Your task to perform on an android device: Search for Mexican restaurants on Maps Image 0: 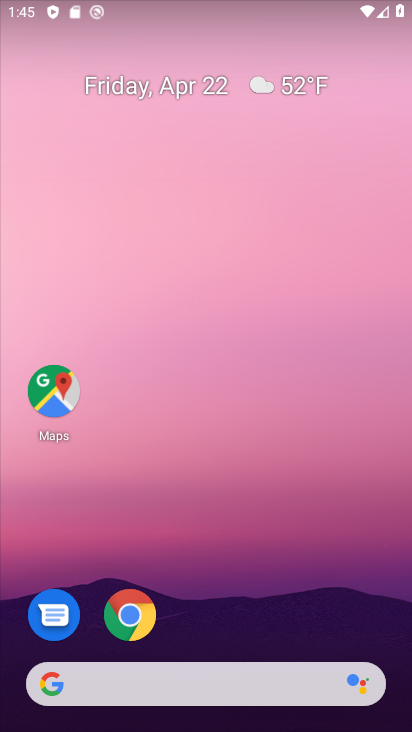
Step 0: drag from (200, 660) to (317, 81)
Your task to perform on an android device: Search for Mexican restaurants on Maps Image 1: 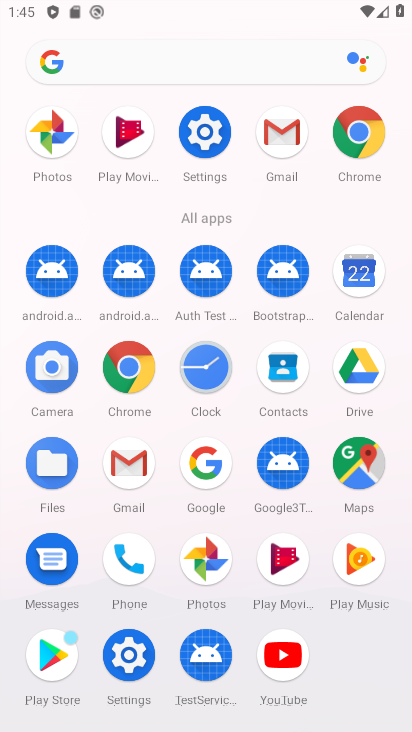
Step 1: click (367, 459)
Your task to perform on an android device: Search for Mexican restaurants on Maps Image 2: 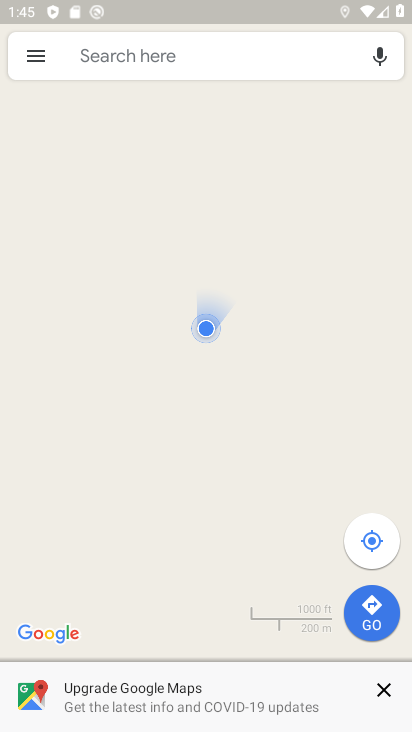
Step 2: click (211, 60)
Your task to perform on an android device: Search for Mexican restaurants on Maps Image 3: 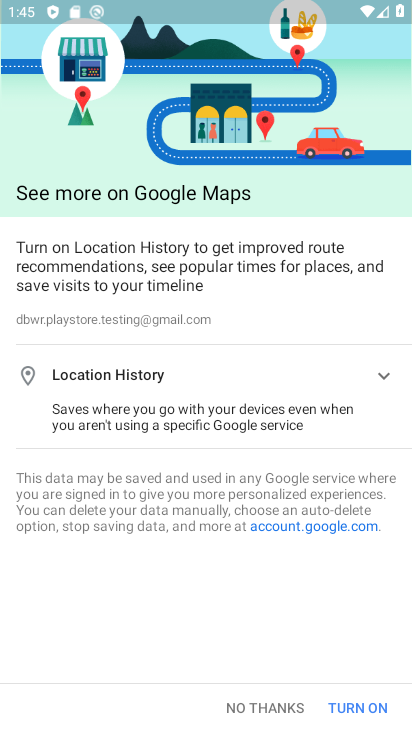
Step 3: click (281, 703)
Your task to perform on an android device: Search for Mexican restaurants on Maps Image 4: 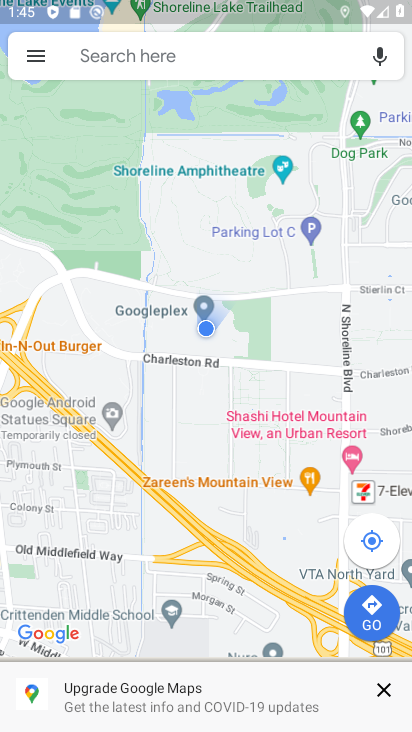
Step 4: click (193, 78)
Your task to perform on an android device: Search for Mexican restaurants on Maps Image 5: 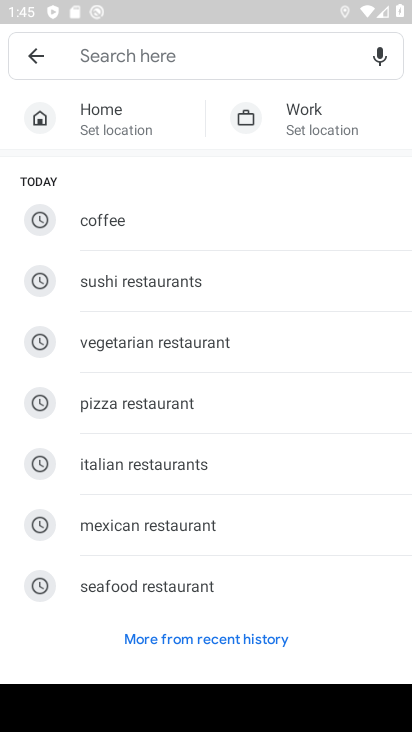
Step 5: type "Mexican restaurants "
Your task to perform on an android device: Search for Mexican restaurants on Maps Image 6: 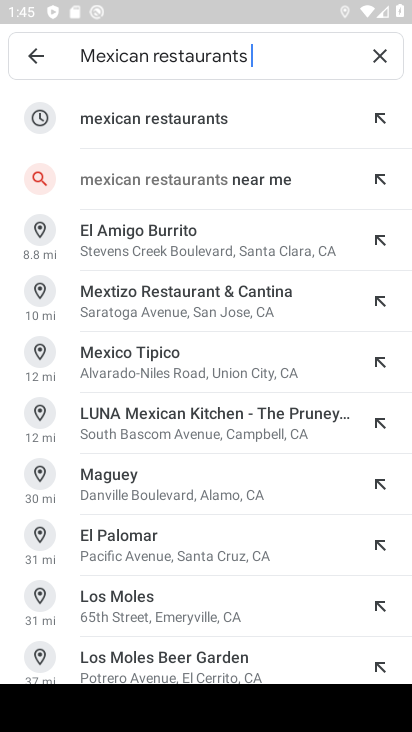
Step 6: click (207, 132)
Your task to perform on an android device: Search for Mexican restaurants on Maps Image 7: 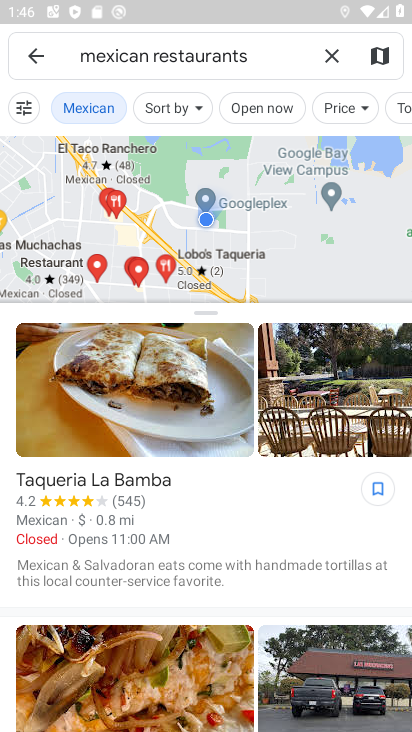
Step 7: task complete